Your task to perform on an android device: turn off picture-in-picture Image 0: 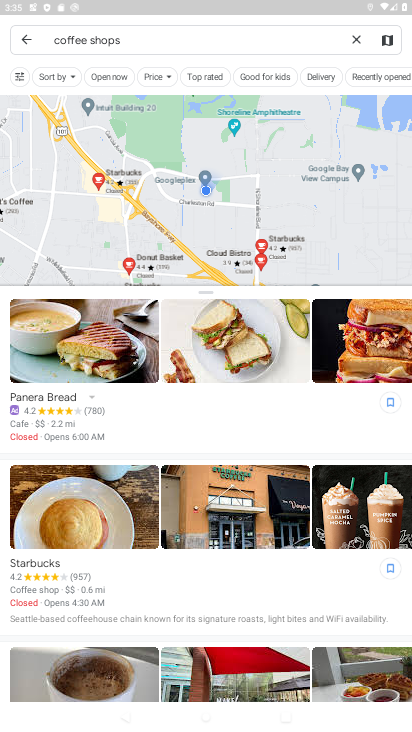
Step 0: press home button
Your task to perform on an android device: turn off picture-in-picture Image 1: 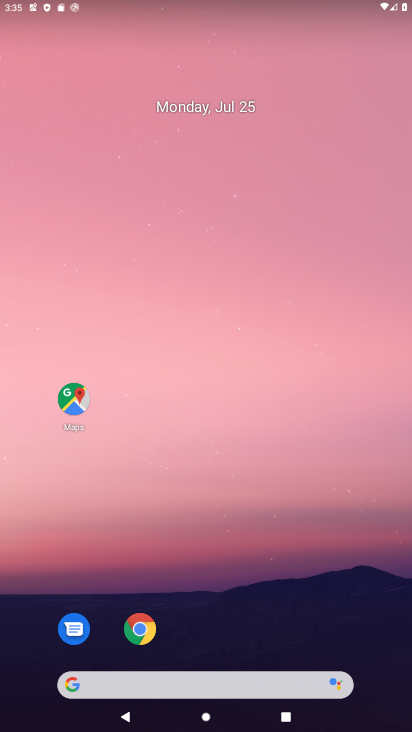
Step 1: drag from (281, 666) to (270, 95)
Your task to perform on an android device: turn off picture-in-picture Image 2: 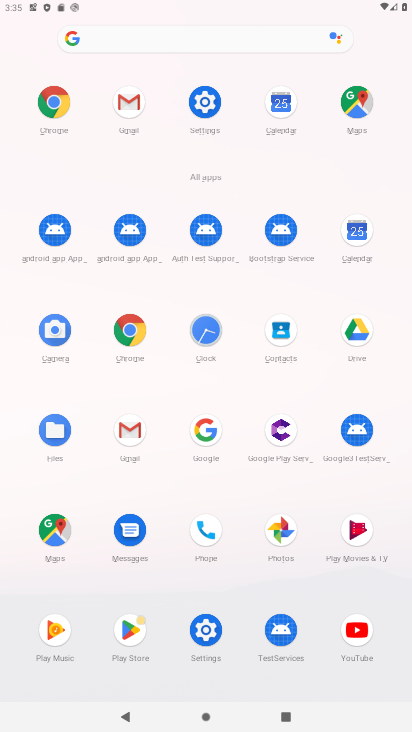
Step 2: click (209, 94)
Your task to perform on an android device: turn off picture-in-picture Image 3: 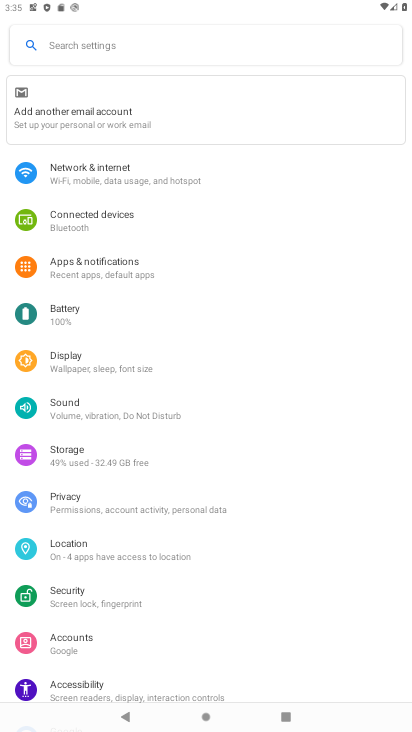
Step 3: click (67, 265)
Your task to perform on an android device: turn off picture-in-picture Image 4: 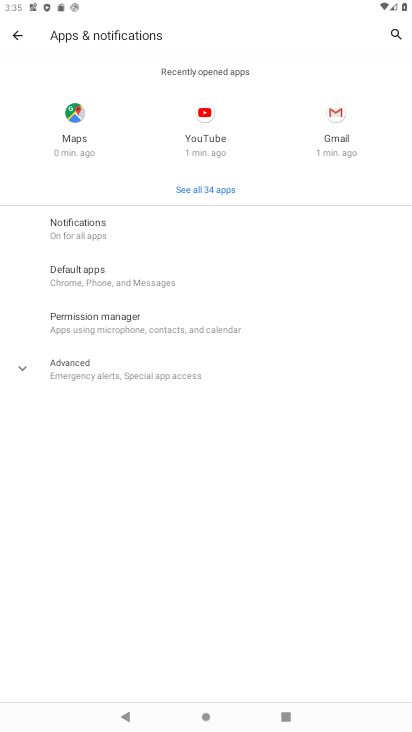
Step 4: click (112, 369)
Your task to perform on an android device: turn off picture-in-picture Image 5: 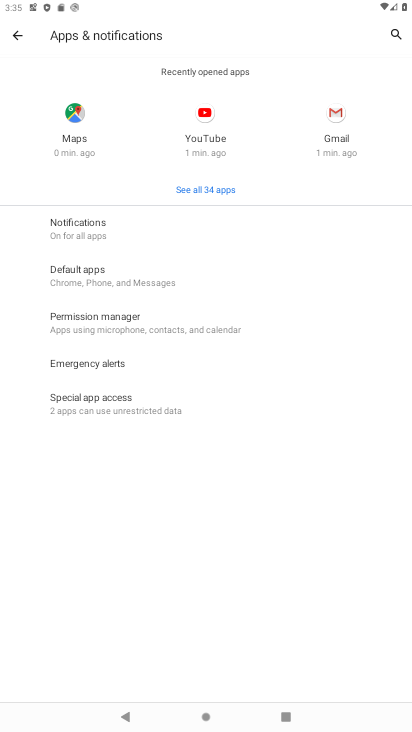
Step 5: click (119, 401)
Your task to perform on an android device: turn off picture-in-picture Image 6: 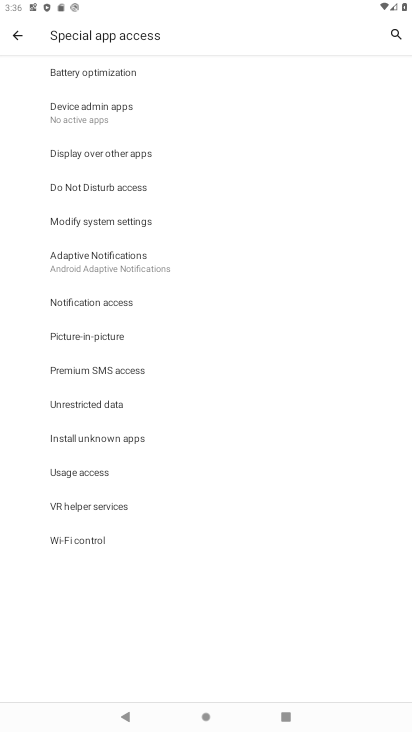
Step 6: click (100, 343)
Your task to perform on an android device: turn off picture-in-picture Image 7: 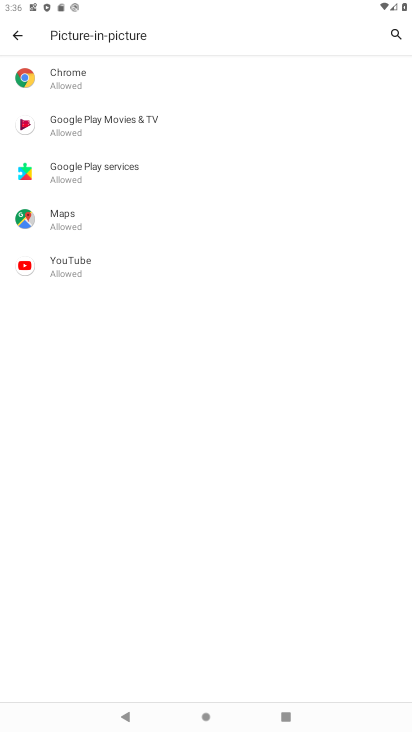
Step 7: click (66, 89)
Your task to perform on an android device: turn off picture-in-picture Image 8: 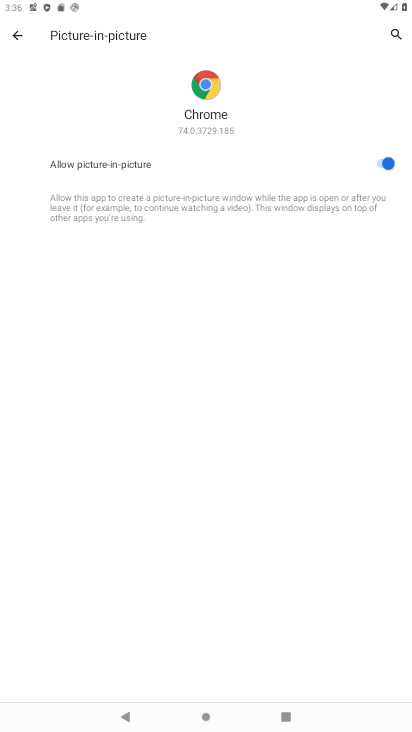
Step 8: click (383, 158)
Your task to perform on an android device: turn off picture-in-picture Image 9: 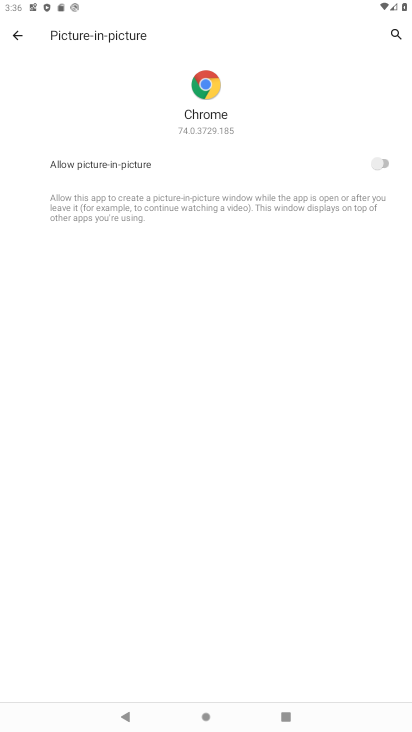
Step 9: press back button
Your task to perform on an android device: turn off picture-in-picture Image 10: 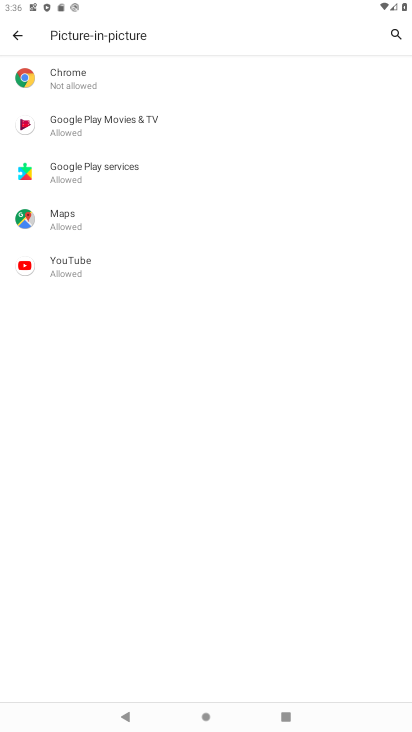
Step 10: click (146, 125)
Your task to perform on an android device: turn off picture-in-picture Image 11: 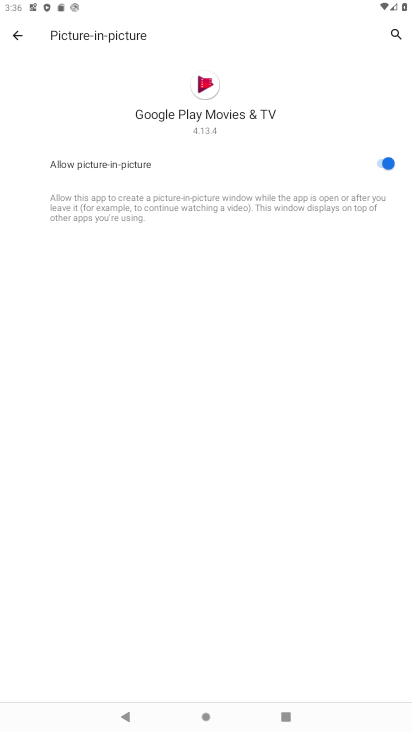
Step 11: click (383, 163)
Your task to perform on an android device: turn off picture-in-picture Image 12: 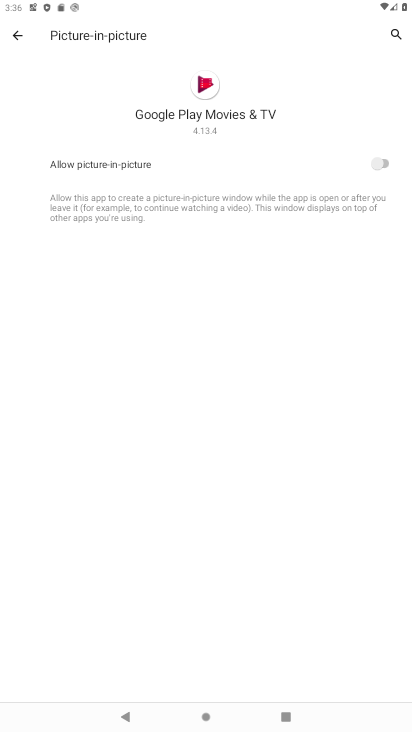
Step 12: press back button
Your task to perform on an android device: turn off picture-in-picture Image 13: 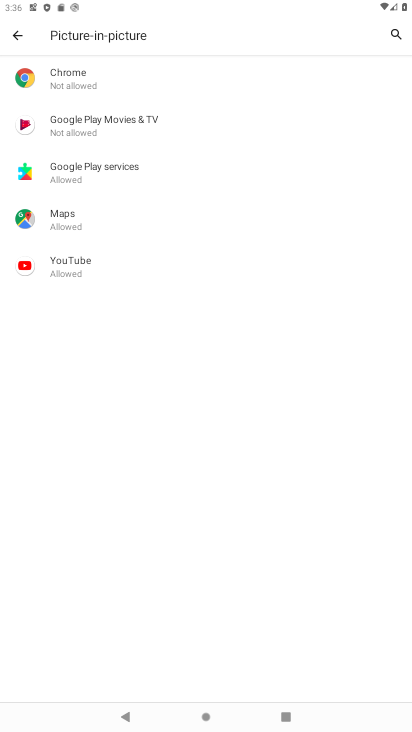
Step 13: click (115, 198)
Your task to perform on an android device: turn off picture-in-picture Image 14: 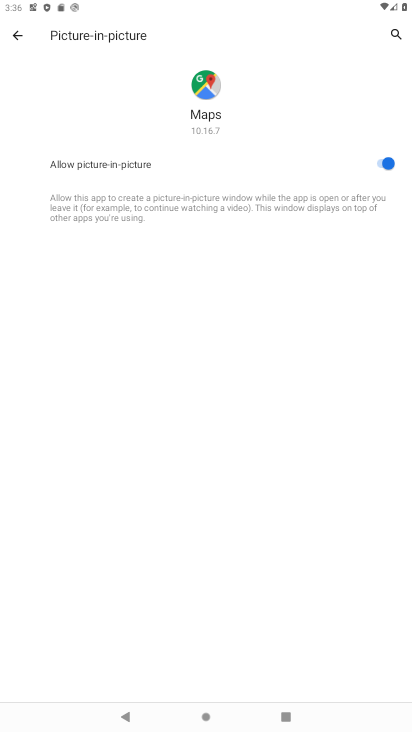
Step 14: click (379, 163)
Your task to perform on an android device: turn off picture-in-picture Image 15: 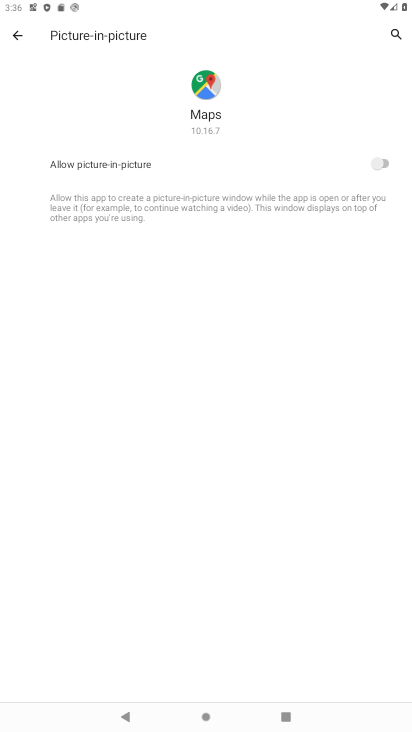
Step 15: press back button
Your task to perform on an android device: turn off picture-in-picture Image 16: 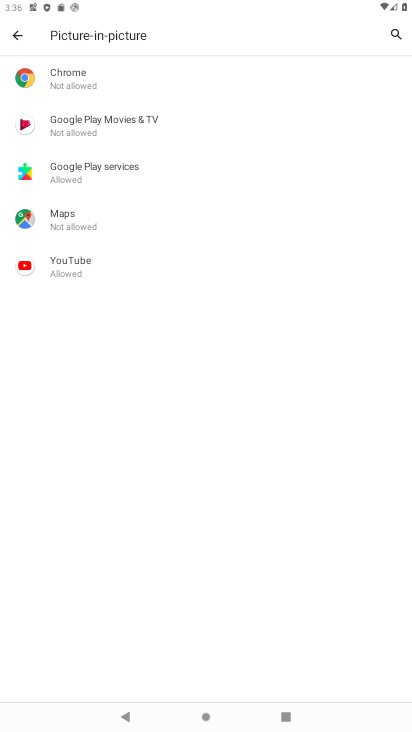
Step 16: click (147, 179)
Your task to perform on an android device: turn off picture-in-picture Image 17: 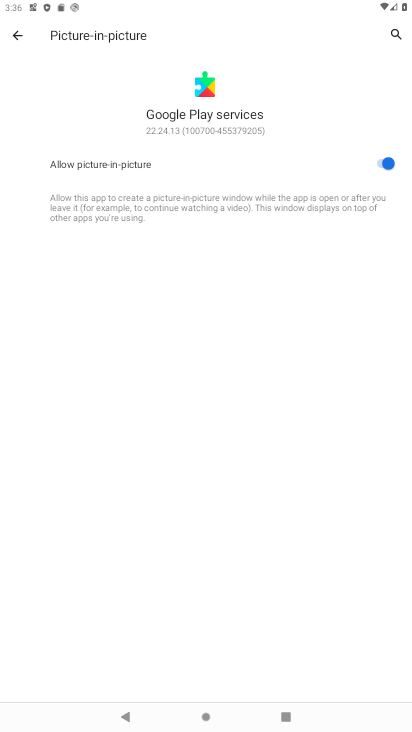
Step 17: click (382, 164)
Your task to perform on an android device: turn off picture-in-picture Image 18: 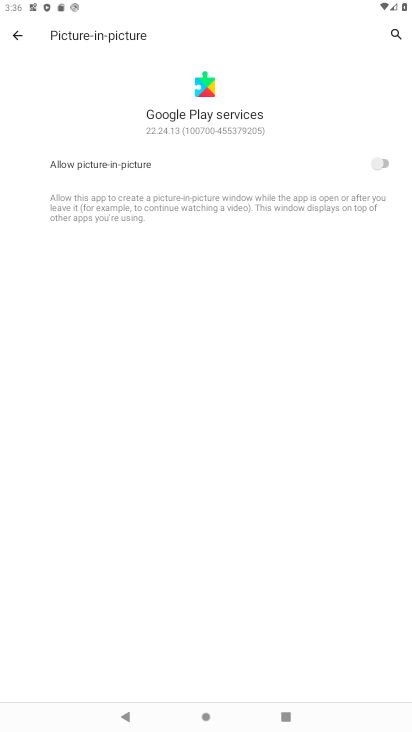
Step 18: press back button
Your task to perform on an android device: turn off picture-in-picture Image 19: 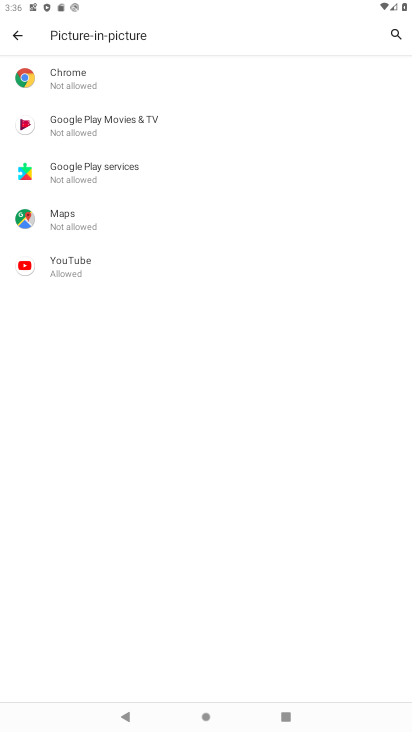
Step 19: click (94, 285)
Your task to perform on an android device: turn off picture-in-picture Image 20: 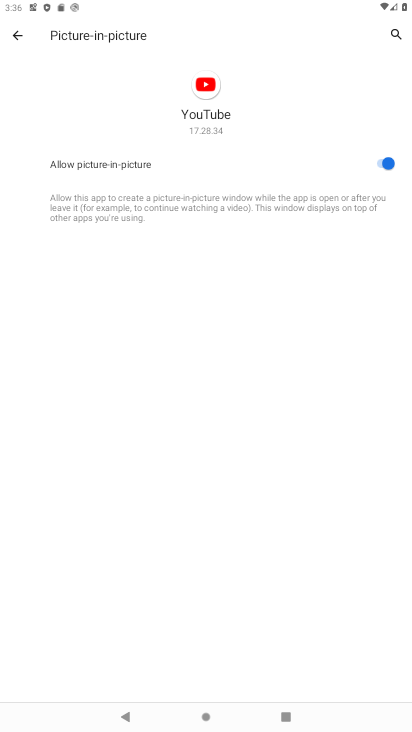
Step 20: click (377, 151)
Your task to perform on an android device: turn off picture-in-picture Image 21: 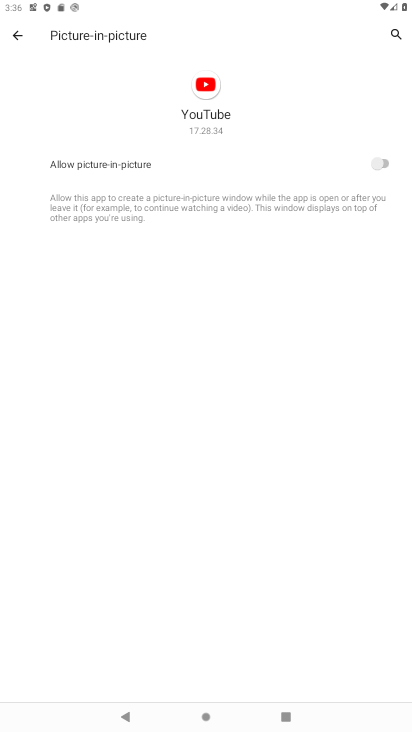
Step 21: task complete